Your task to perform on an android device: Open Maps and search for coffee Image 0: 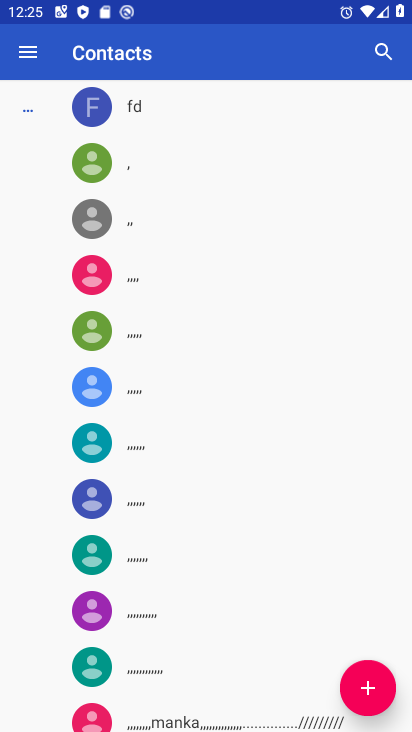
Step 0: press back button
Your task to perform on an android device: Open Maps and search for coffee Image 1: 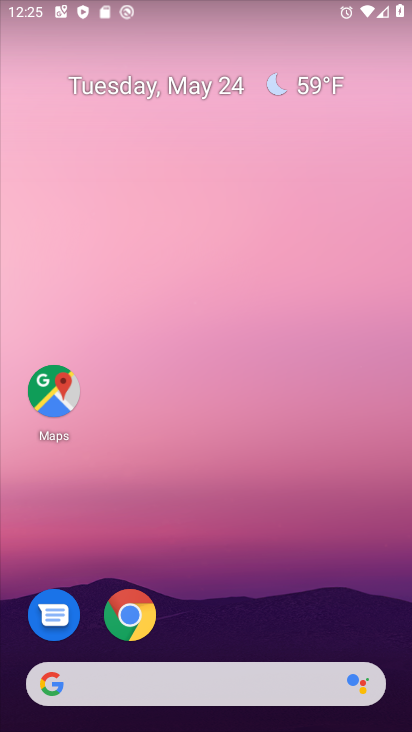
Step 1: drag from (319, 623) to (241, 12)
Your task to perform on an android device: Open Maps and search for coffee Image 2: 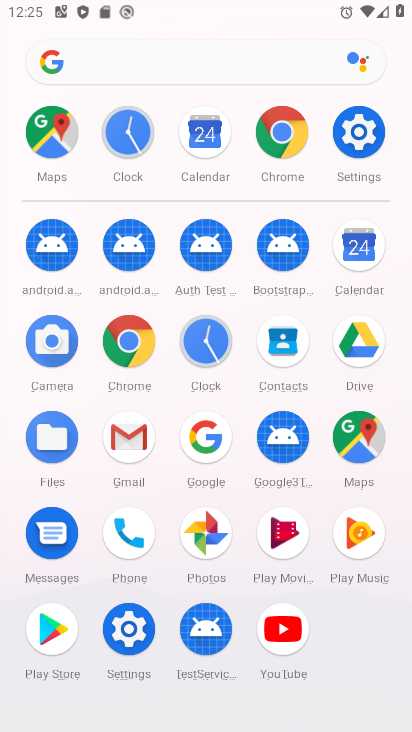
Step 2: drag from (13, 581) to (13, 240)
Your task to perform on an android device: Open Maps and search for coffee Image 3: 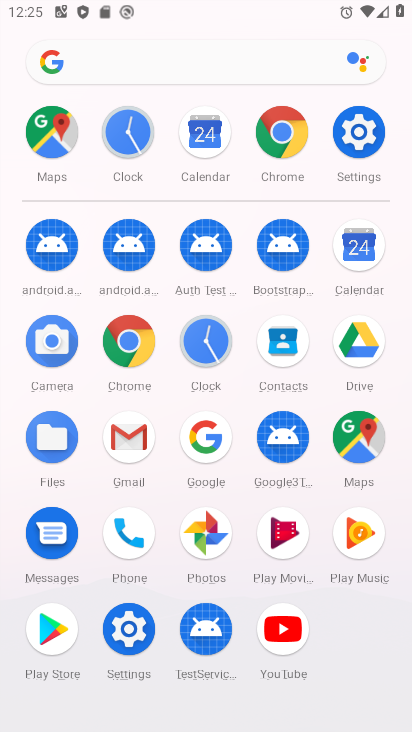
Step 3: click (357, 432)
Your task to perform on an android device: Open Maps and search for coffee Image 4: 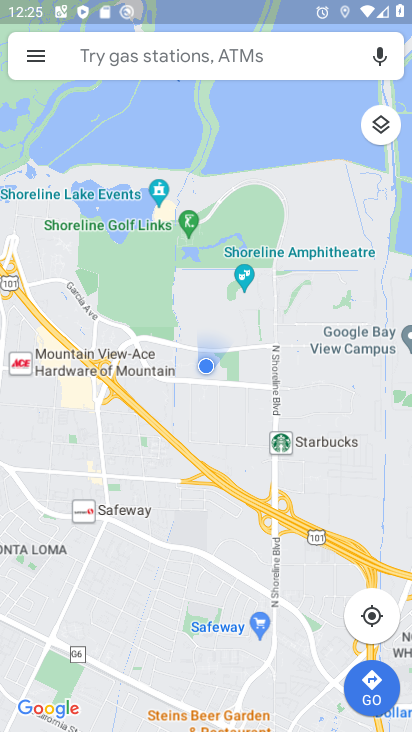
Step 4: click (140, 54)
Your task to perform on an android device: Open Maps and search for coffee Image 5: 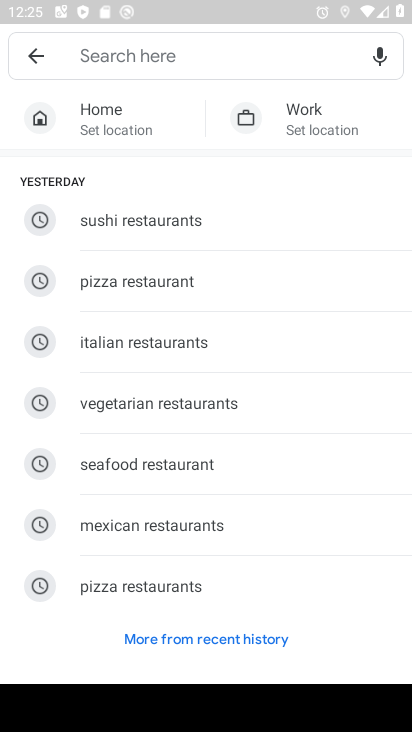
Step 5: type "coffee"
Your task to perform on an android device: Open Maps and search for coffee Image 6: 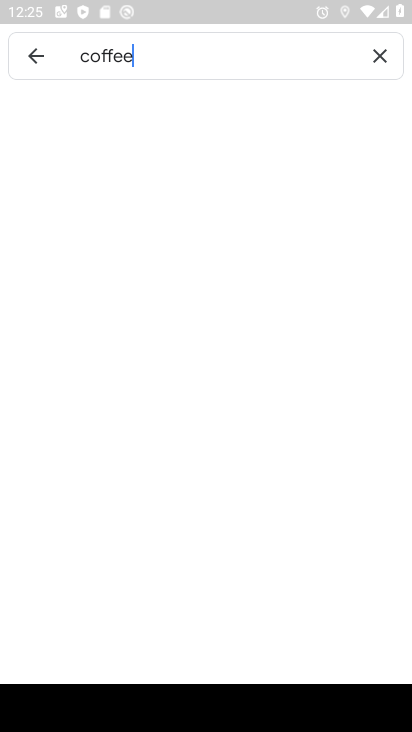
Step 6: type ""
Your task to perform on an android device: Open Maps and search for coffee Image 7: 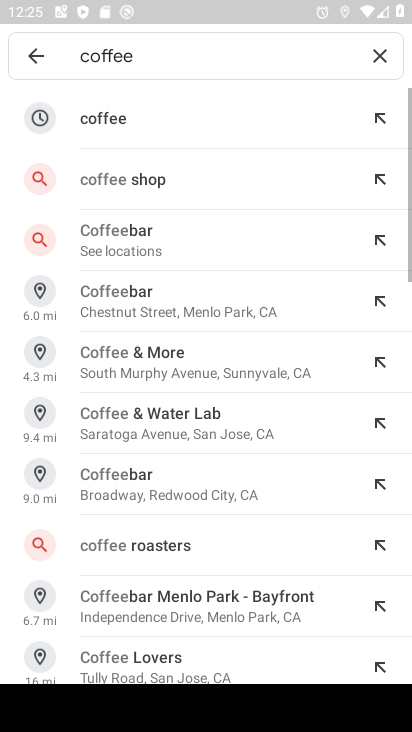
Step 7: click (152, 122)
Your task to perform on an android device: Open Maps and search for coffee Image 8: 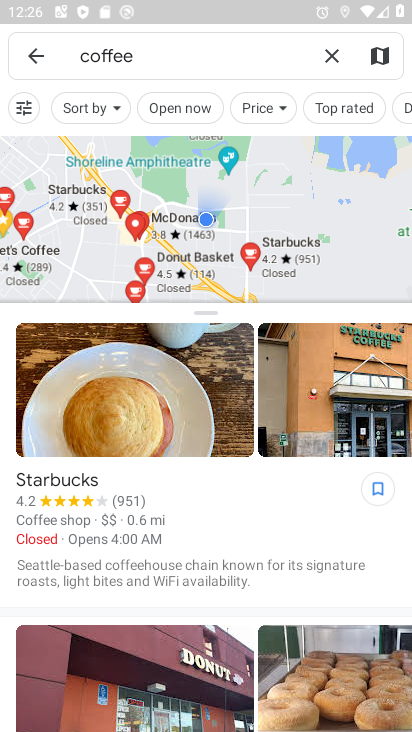
Step 8: task complete